Your task to perform on an android device: empty trash in the gmail app Image 0: 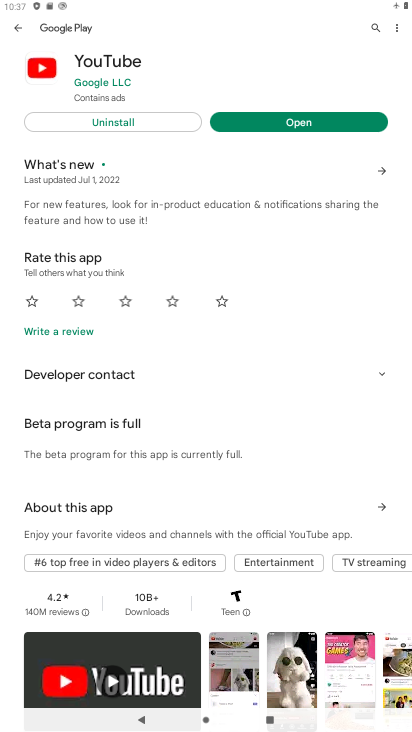
Step 0: press home button
Your task to perform on an android device: empty trash in the gmail app Image 1: 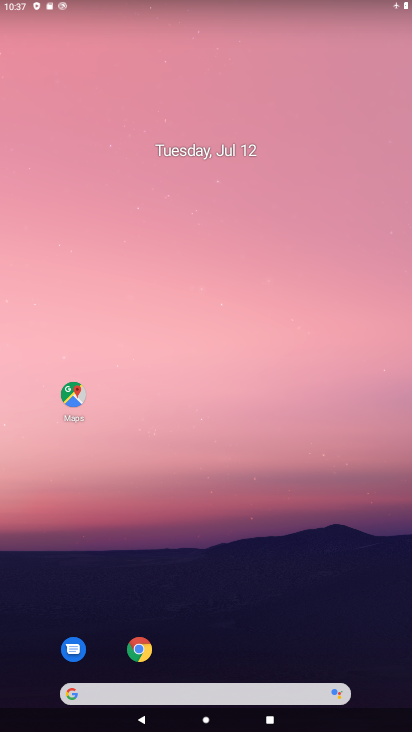
Step 1: drag from (391, 641) to (316, 48)
Your task to perform on an android device: empty trash in the gmail app Image 2: 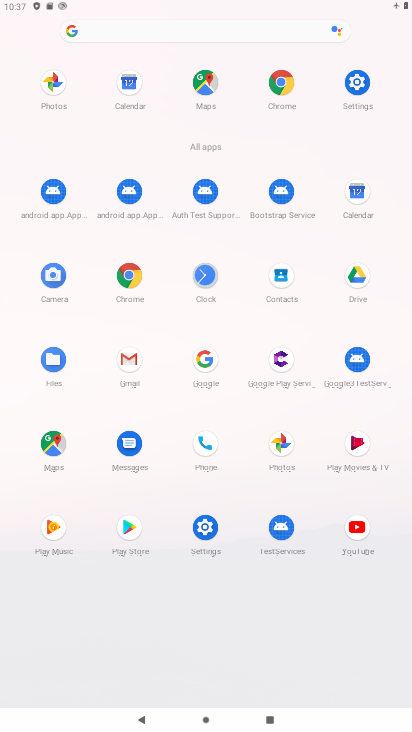
Step 2: click (130, 360)
Your task to perform on an android device: empty trash in the gmail app Image 3: 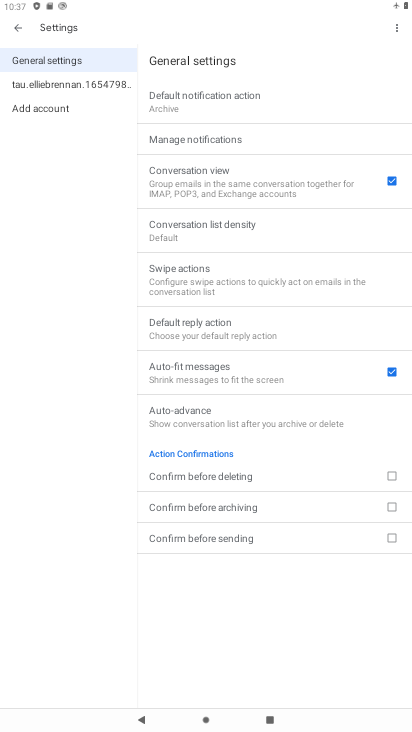
Step 3: press back button
Your task to perform on an android device: empty trash in the gmail app Image 4: 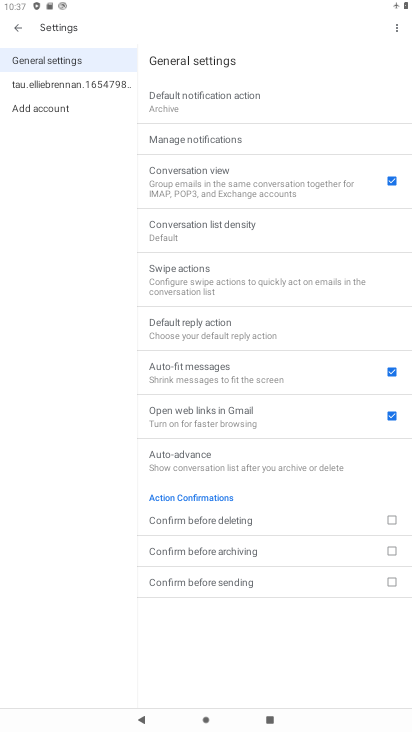
Step 4: press back button
Your task to perform on an android device: empty trash in the gmail app Image 5: 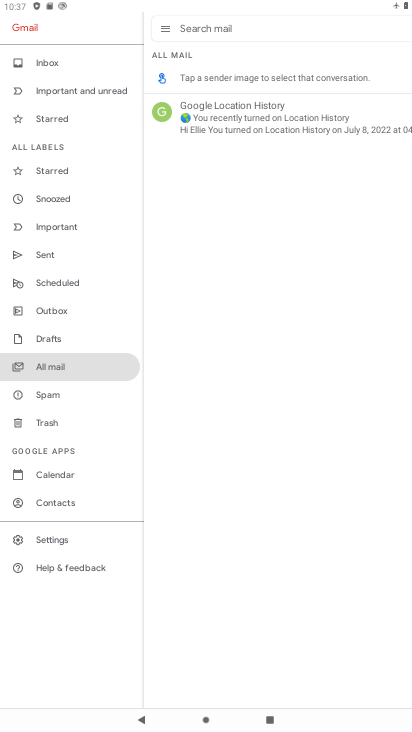
Step 5: click (43, 422)
Your task to perform on an android device: empty trash in the gmail app Image 6: 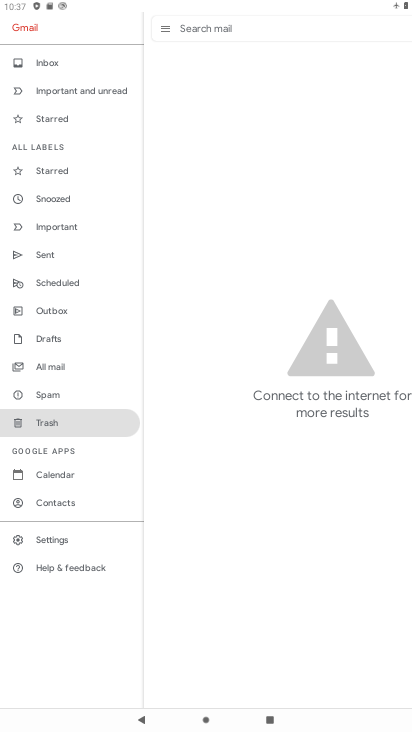
Step 6: task complete